Your task to perform on an android device: Do I have any events this weekend? Image 0: 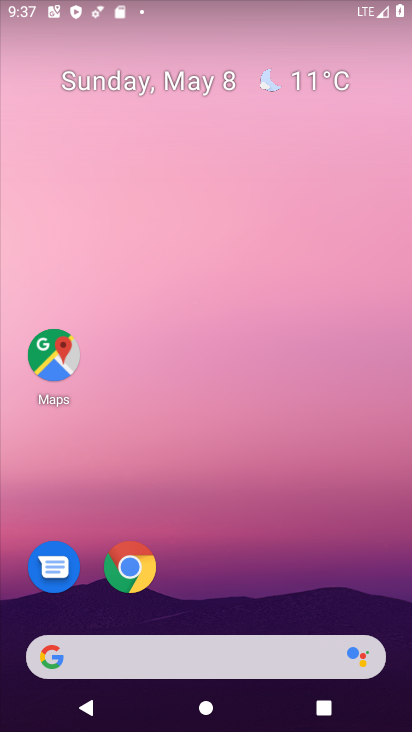
Step 0: drag from (205, 549) to (348, 0)
Your task to perform on an android device: Do I have any events this weekend? Image 1: 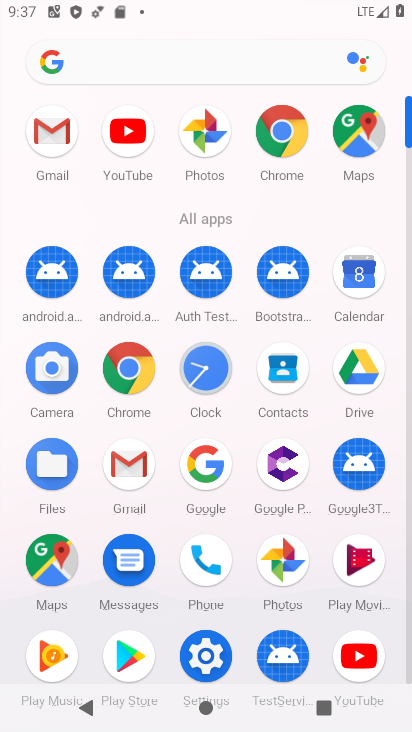
Step 1: click (360, 274)
Your task to perform on an android device: Do I have any events this weekend? Image 2: 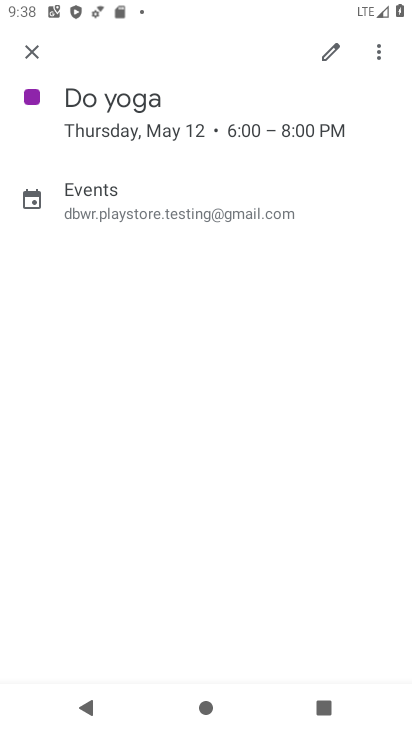
Step 2: click (31, 45)
Your task to perform on an android device: Do I have any events this weekend? Image 3: 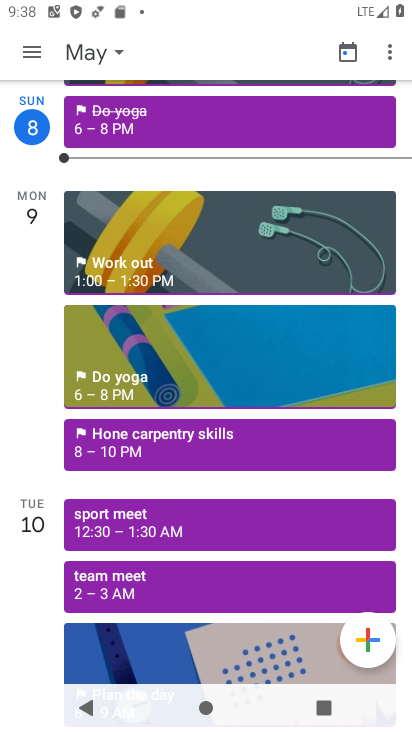
Step 3: task complete